Your task to perform on an android device: Go to display settings Image 0: 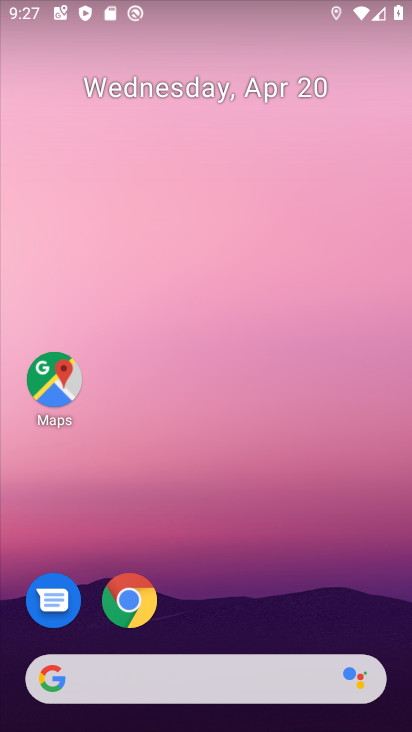
Step 0: drag from (190, 624) to (261, 28)
Your task to perform on an android device: Go to display settings Image 1: 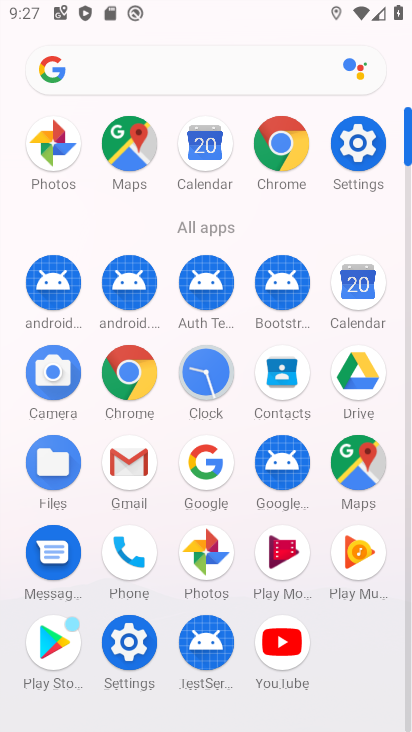
Step 1: click (361, 139)
Your task to perform on an android device: Go to display settings Image 2: 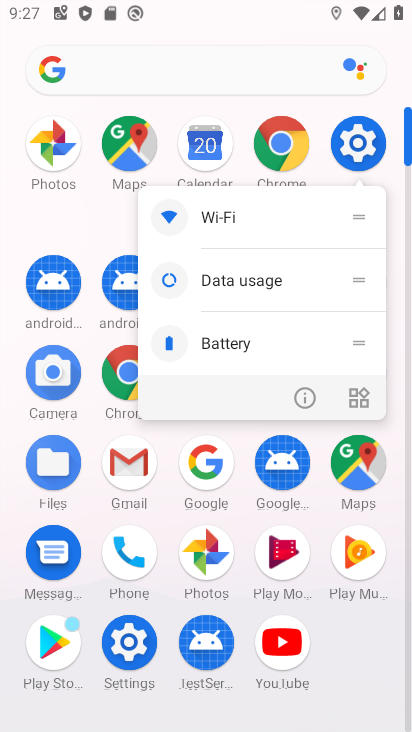
Step 2: click (361, 139)
Your task to perform on an android device: Go to display settings Image 3: 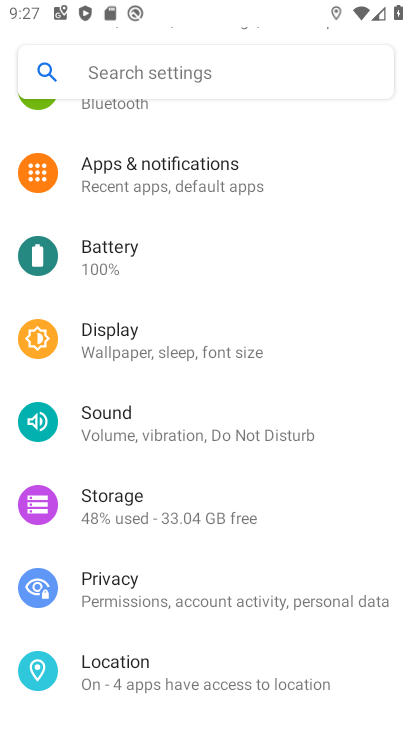
Step 3: click (149, 348)
Your task to perform on an android device: Go to display settings Image 4: 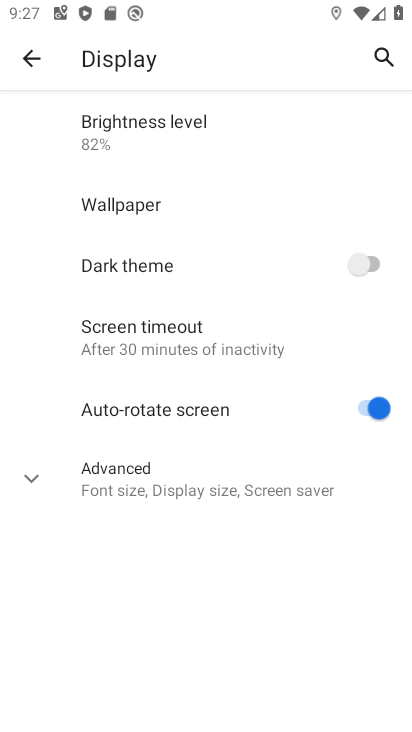
Step 4: click (161, 470)
Your task to perform on an android device: Go to display settings Image 5: 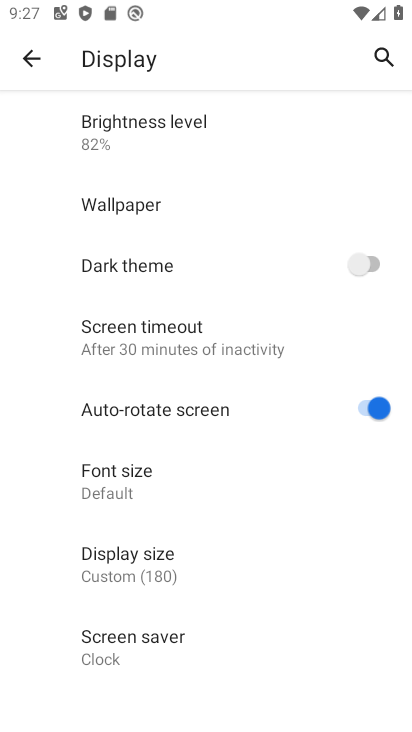
Step 5: task complete